Your task to perform on an android device: open device folders in google photos Image 0: 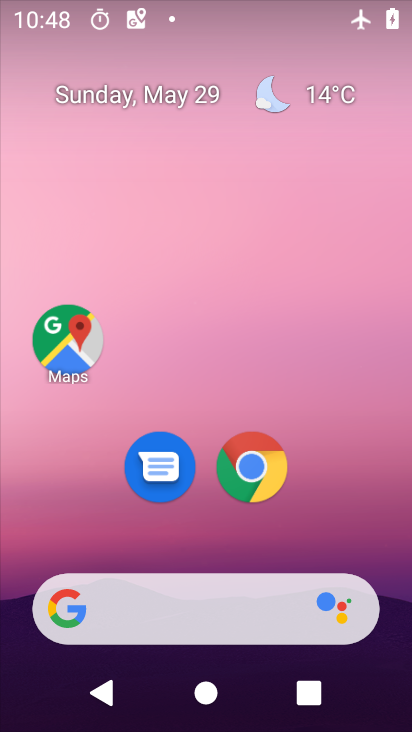
Step 0: drag from (196, 537) to (210, 163)
Your task to perform on an android device: open device folders in google photos Image 1: 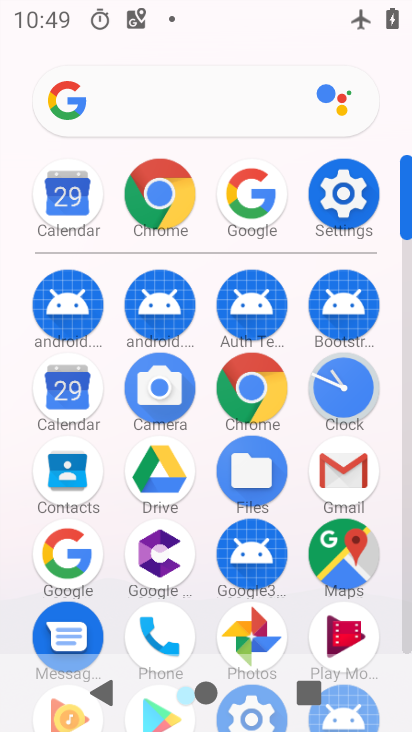
Step 1: drag from (195, 560) to (199, 305)
Your task to perform on an android device: open device folders in google photos Image 2: 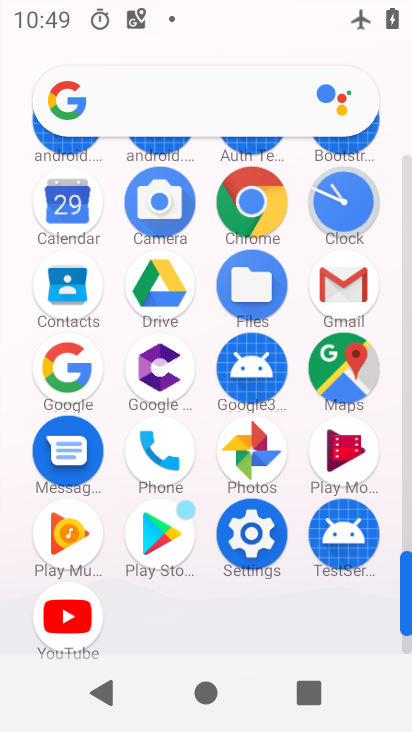
Step 2: click (249, 455)
Your task to perform on an android device: open device folders in google photos Image 3: 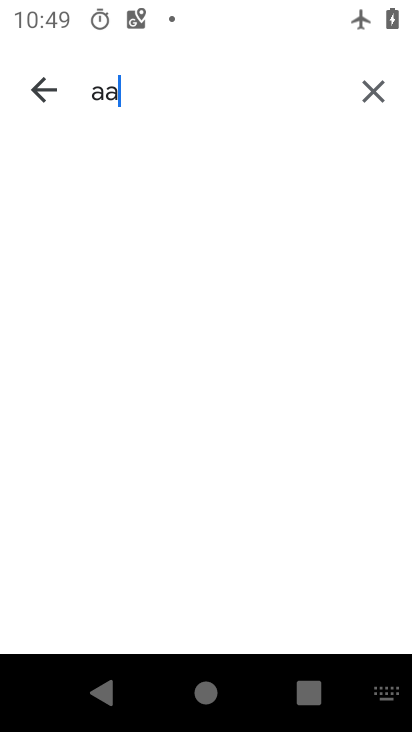
Step 3: click (354, 87)
Your task to perform on an android device: open device folders in google photos Image 4: 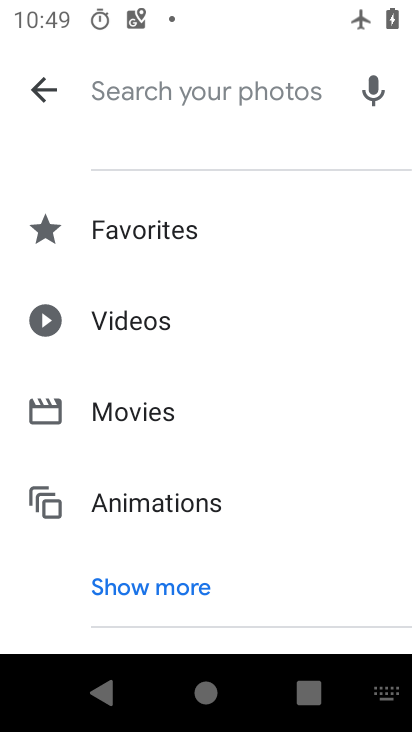
Step 4: click (44, 79)
Your task to perform on an android device: open device folders in google photos Image 5: 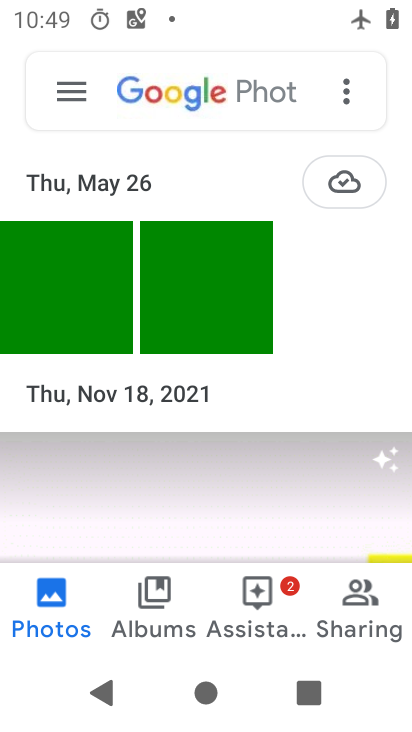
Step 5: click (47, 80)
Your task to perform on an android device: open device folders in google photos Image 6: 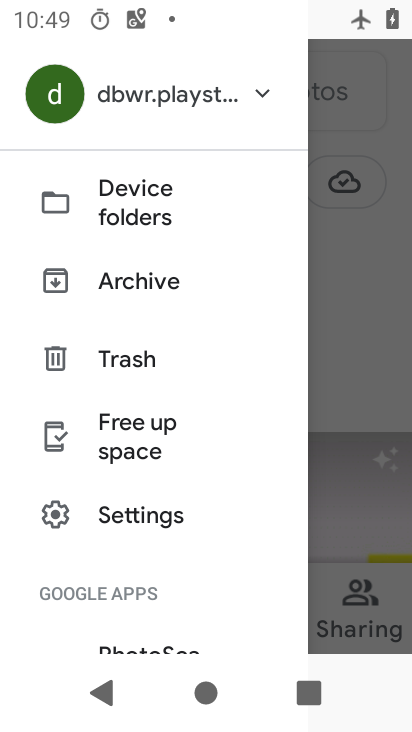
Step 6: click (147, 198)
Your task to perform on an android device: open device folders in google photos Image 7: 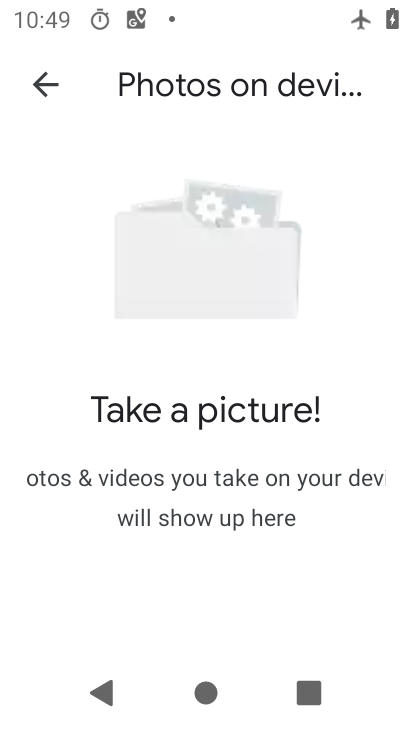
Step 7: task complete